Your task to perform on an android device: Show me recent news Image 0: 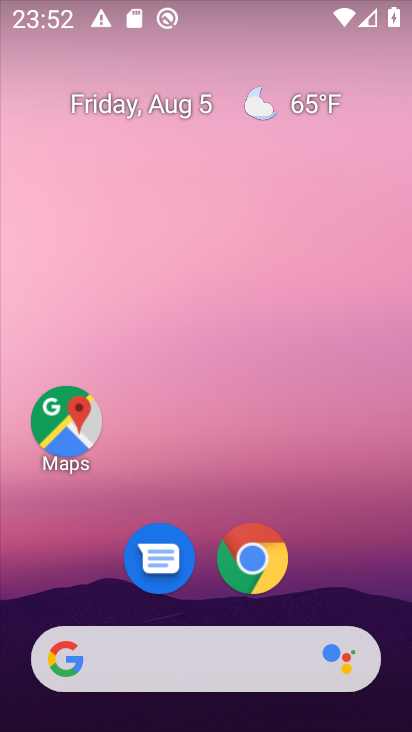
Step 0: press home button
Your task to perform on an android device: Show me recent news Image 1: 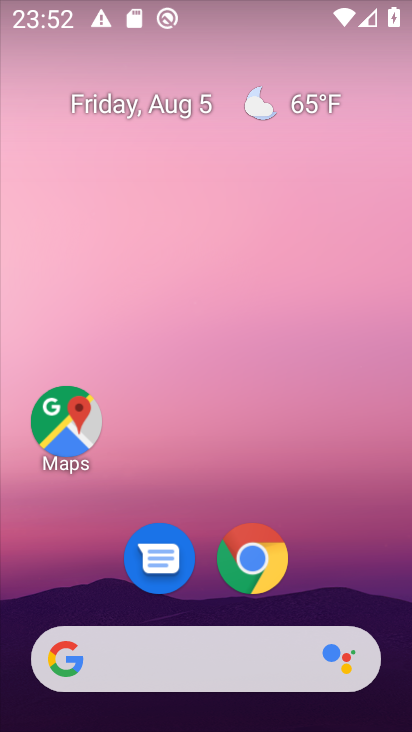
Step 1: task complete